Your task to perform on an android device: install app "NewsBreak: Local News & Alerts" Image 0: 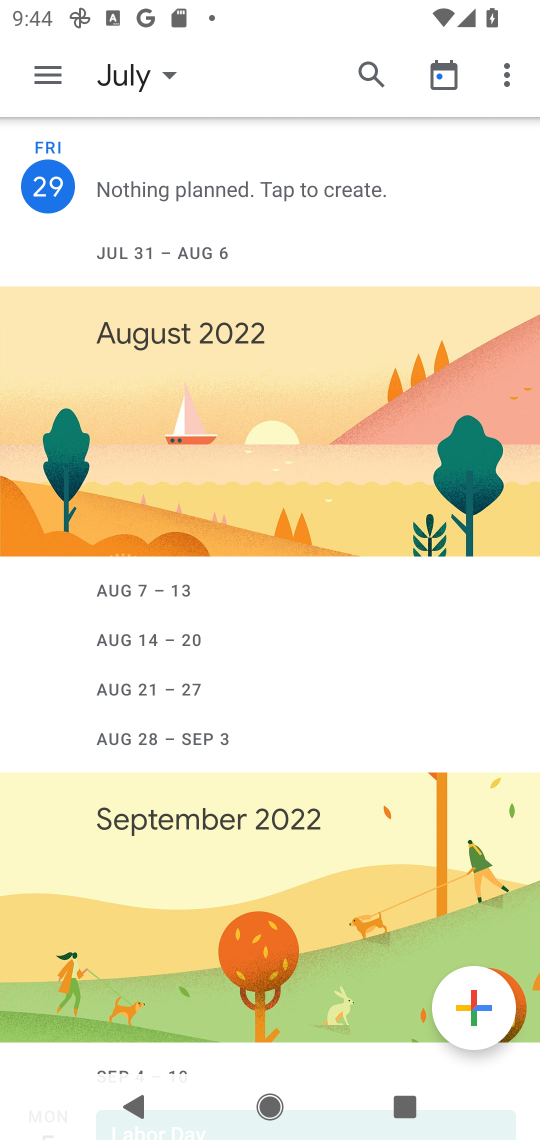
Step 0: press home button
Your task to perform on an android device: install app "NewsBreak: Local News & Alerts" Image 1: 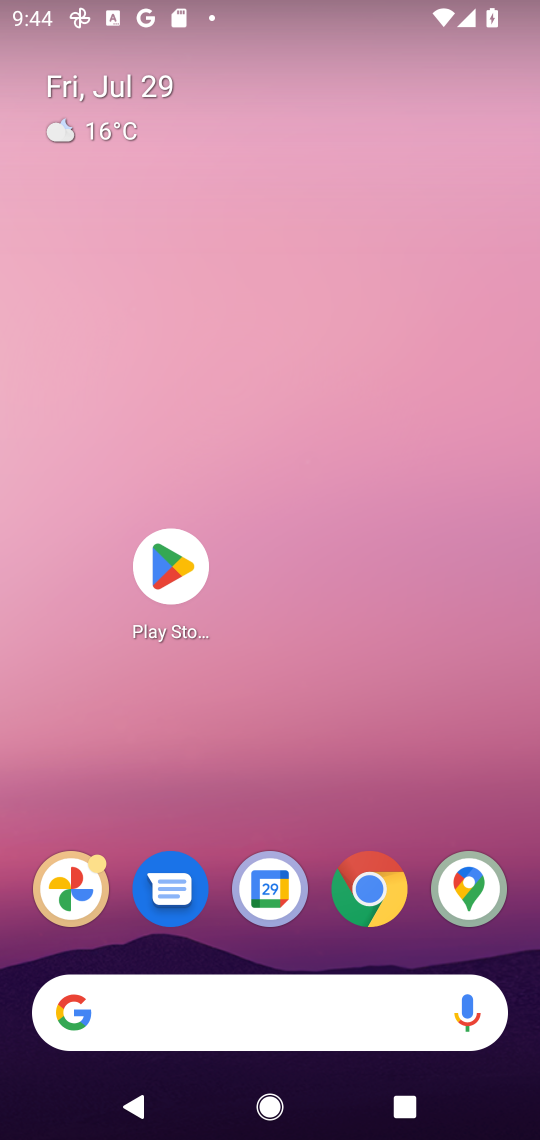
Step 1: click (172, 567)
Your task to perform on an android device: install app "NewsBreak: Local News & Alerts" Image 2: 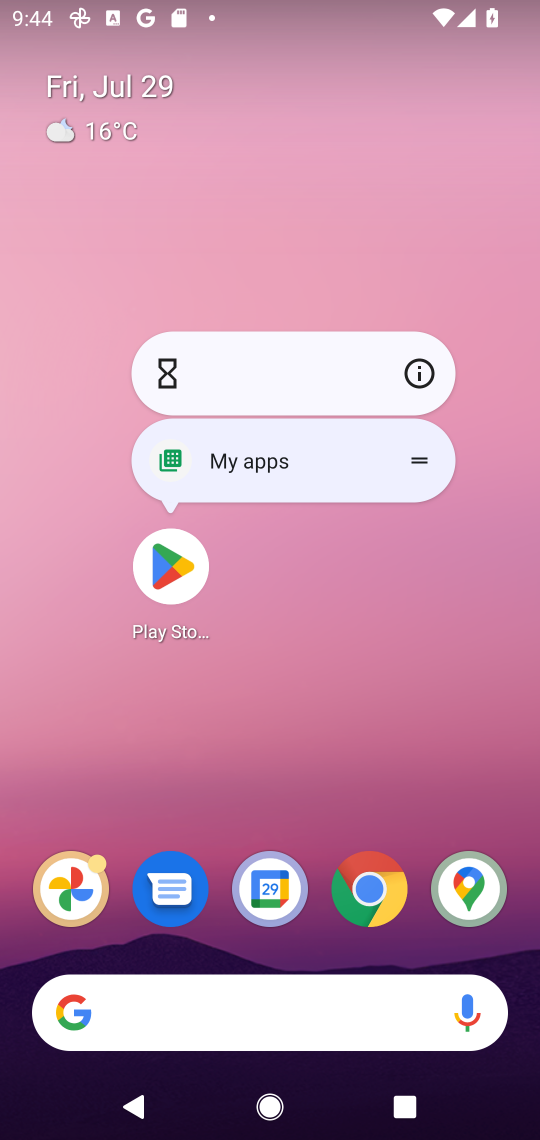
Step 2: click (172, 569)
Your task to perform on an android device: install app "NewsBreak: Local News & Alerts" Image 3: 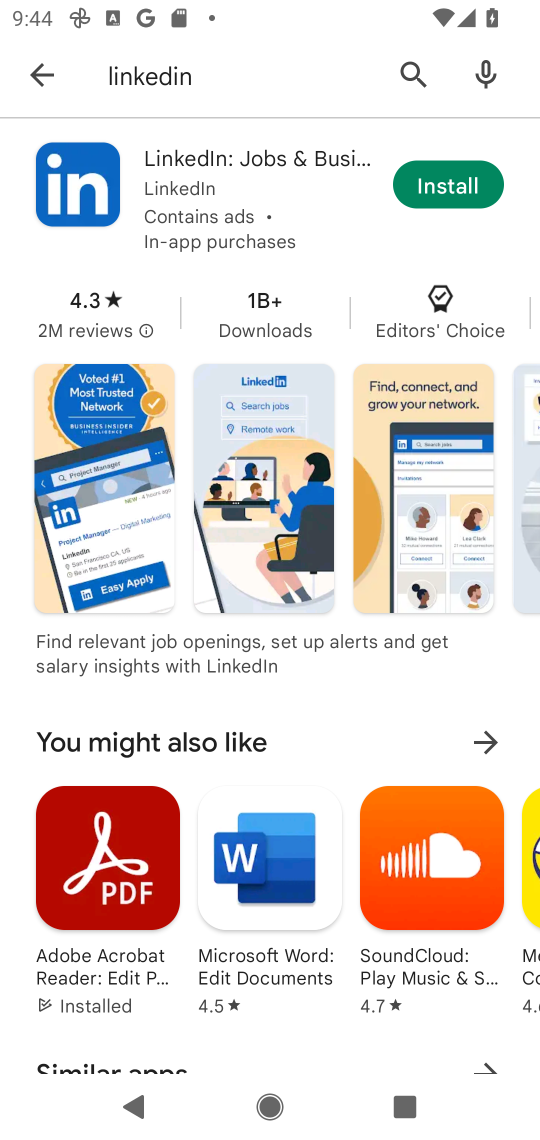
Step 3: click (398, 72)
Your task to perform on an android device: install app "NewsBreak: Local News & Alerts" Image 4: 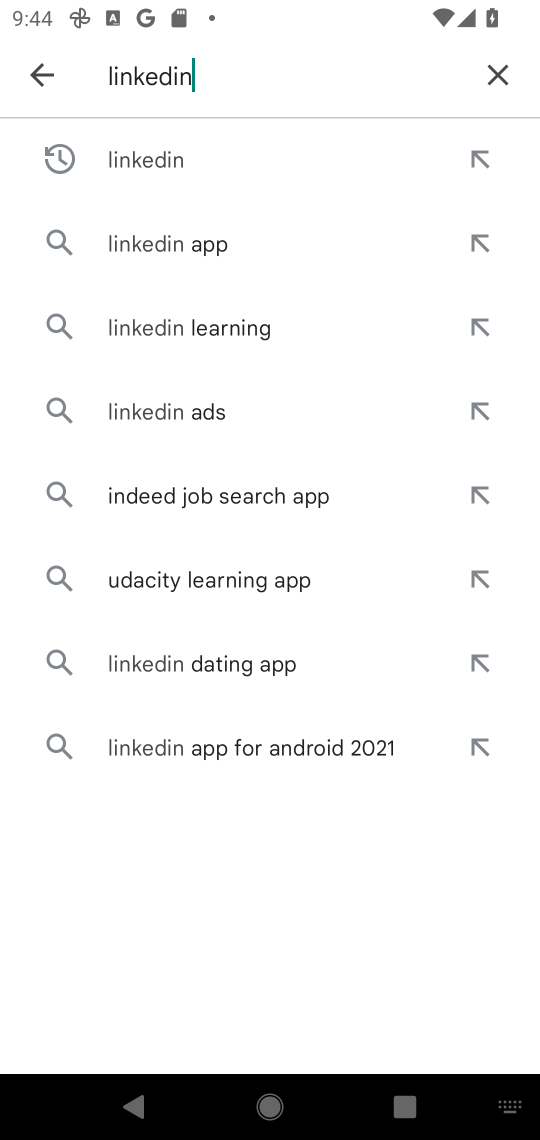
Step 4: click (500, 71)
Your task to perform on an android device: install app "NewsBreak: Local News & Alerts" Image 5: 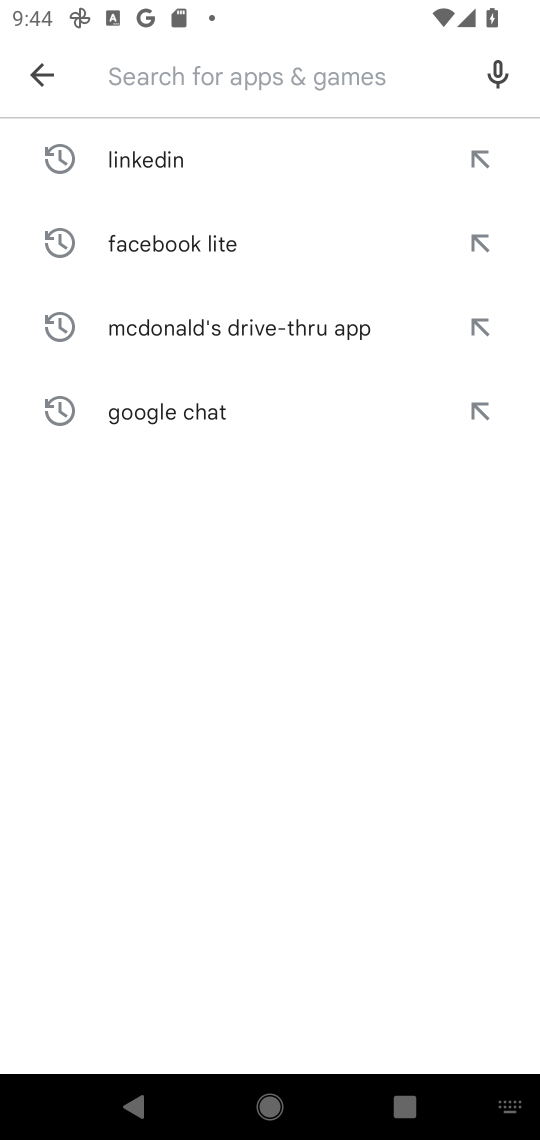
Step 5: type "NewsBreak: Local News & Alerts"
Your task to perform on an android device: install app "NewsBreak: Local News & Alerts" Image 6: 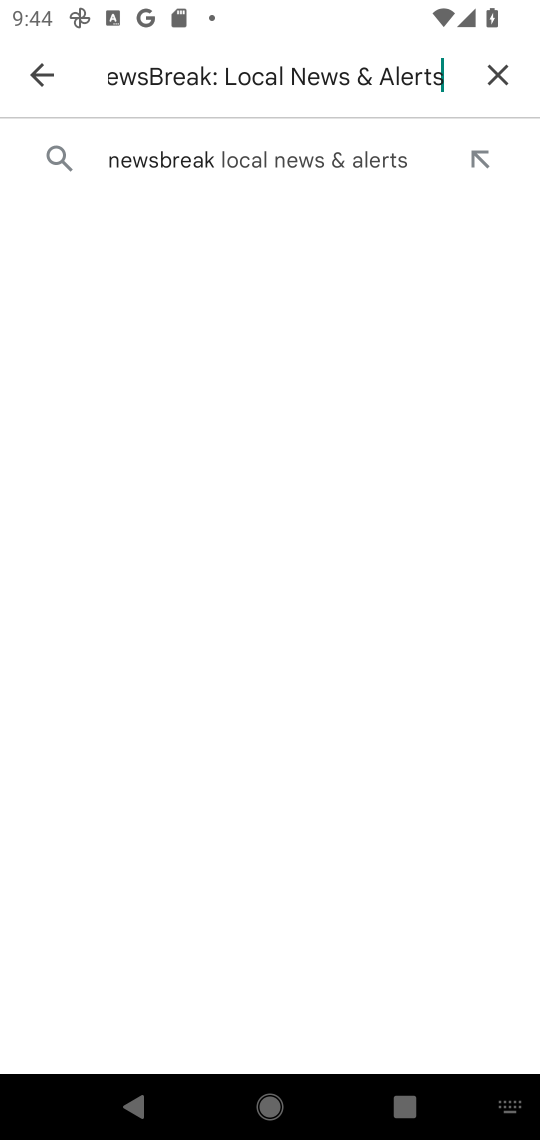
Step 6: click (187, 152)
Your task to perform on an android device: install app "NewsBreak: Local News & Alerts" Image 7: 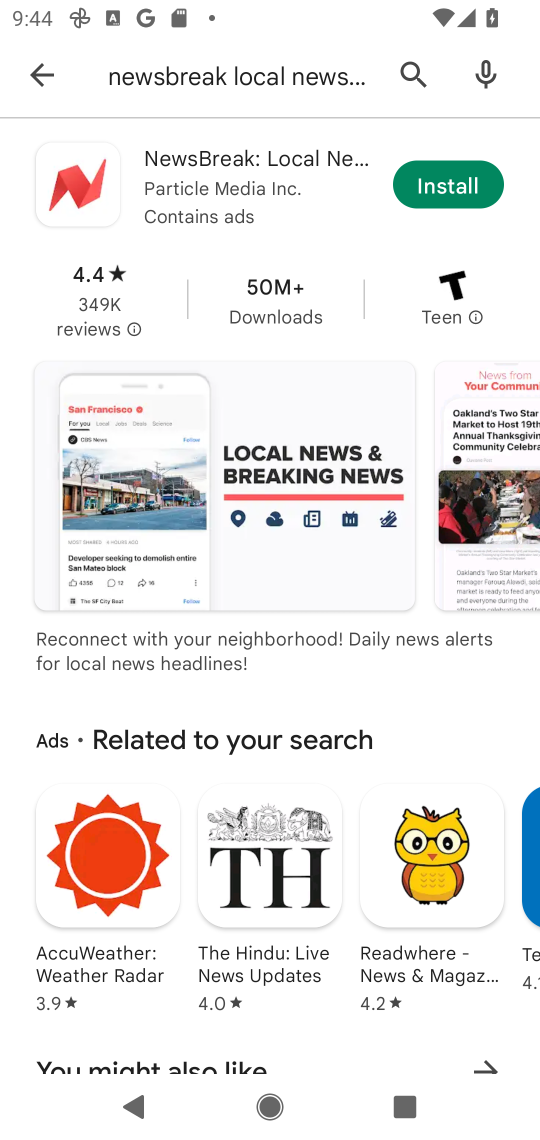
Step 7: click (454, 185)
Your task to perform on an android device: install app "NewsBreak: Local News & Alerts" Image 8: 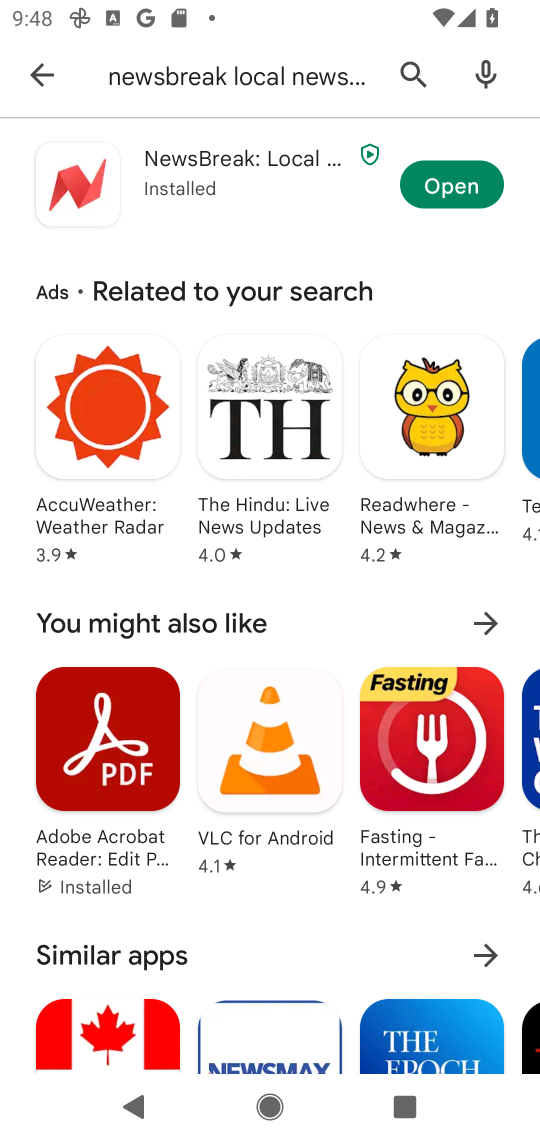
Step 8: task complete